Your task to perform on an android device: turn off smart reply in the gmail app Image 0: 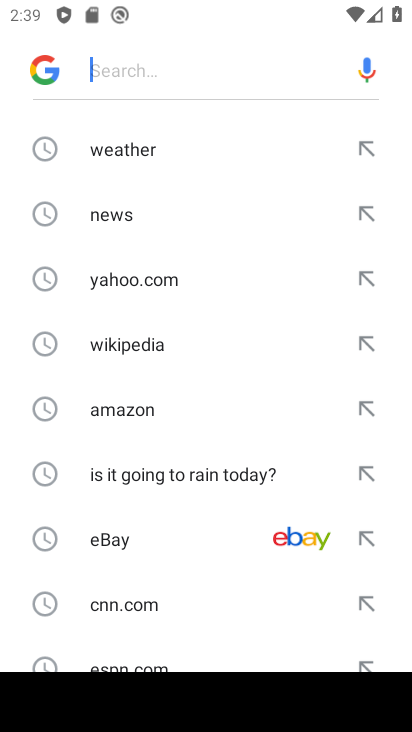
Step 0: press home button
Your task to perform on an android device: turn off smart reply in the gmail app Image 1: 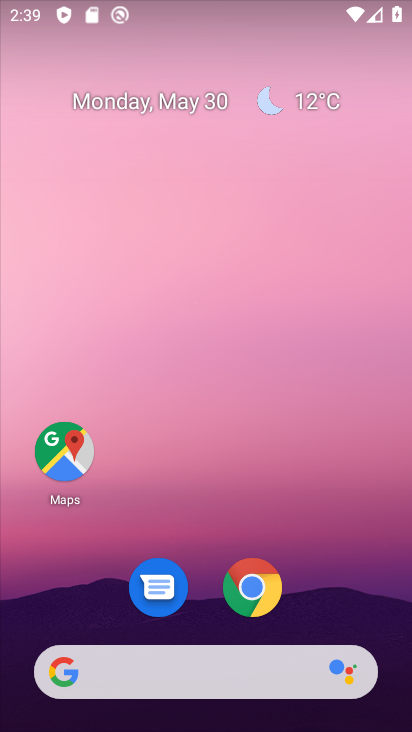
Step 1: drag from (201, 614) to (214, 167)
Your task to perform on an android device: turn off smart reply in the gmail app Image 2: 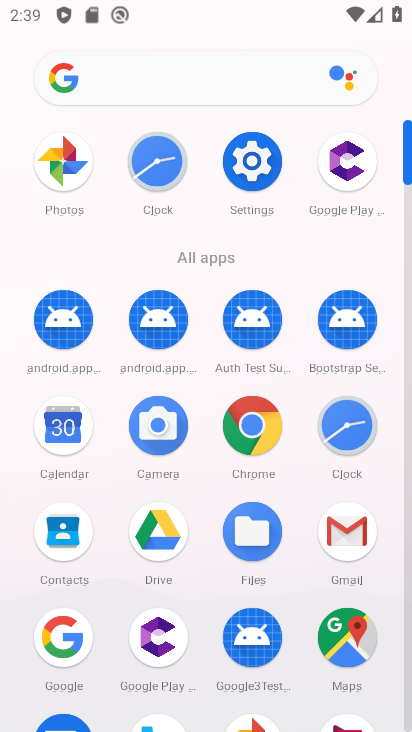
Step 2: click (341, 534)
Your task to perform on an android device: turn off smart reply in the gmail app Image 3: 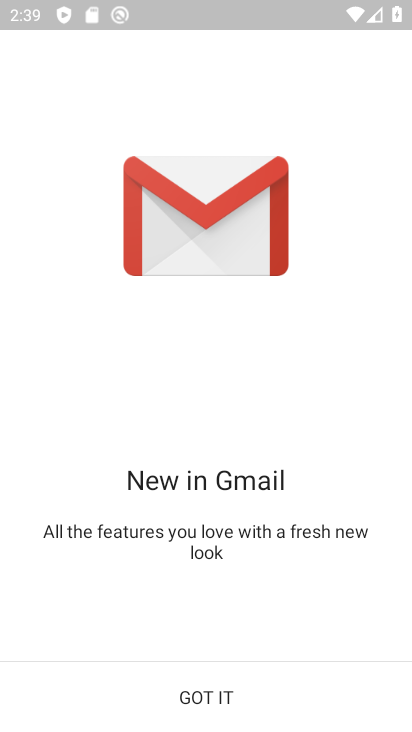
Step 3: click (203, 701)
Your task to perform on an android device: turn off smart reply in the gmail app Image 4: 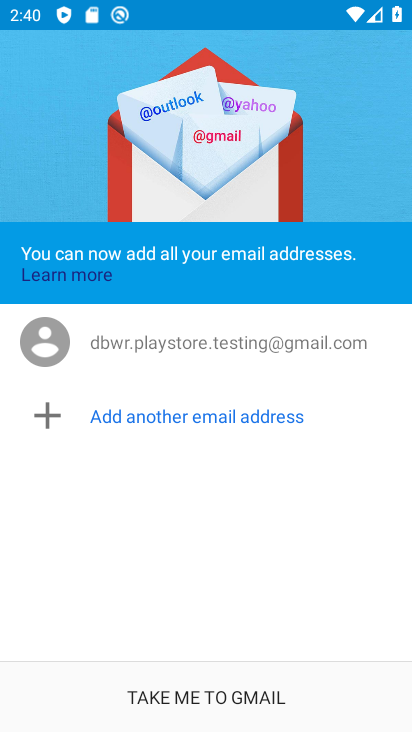
Step 4: click (173, 706)
Your task to perform on an android device: turn off smart reply in the gmail app Image 5: 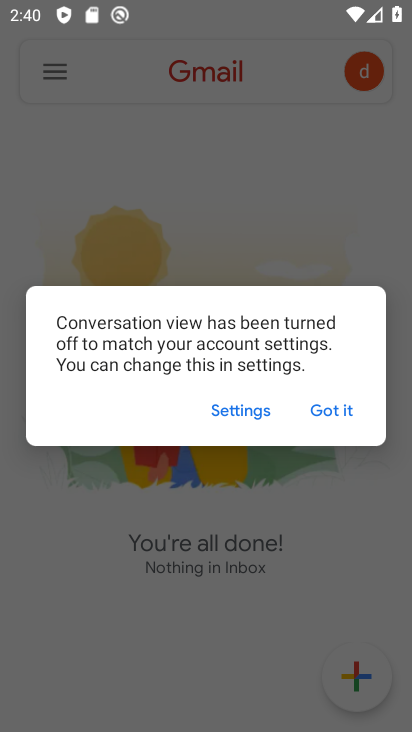
Step 5: click (312, 412)
Your task to perform on an android device: turn off smart reply in the gmail app Image 6: 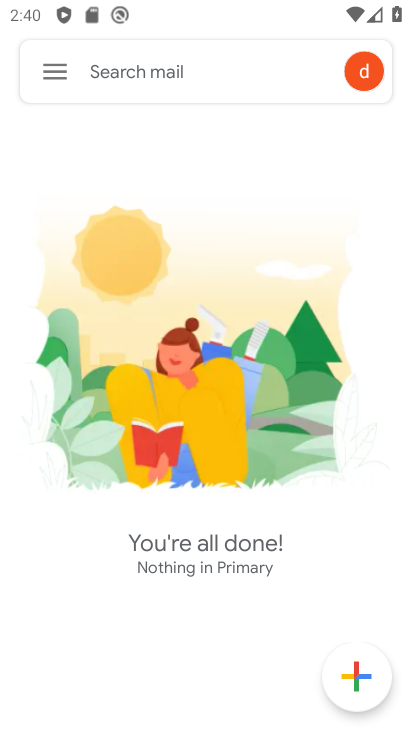
Step 6: click (64, 73)
Your task to perform on an android device: turn off smart reply in the gmail app Image 7: 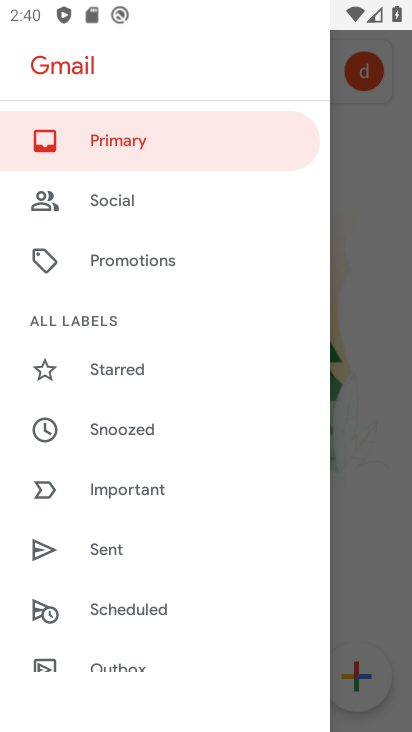
Step 7: drag from (145, 611) to (167, 250)
Your task to perform on an android device: turn off smart reply in the gmail app Image 8: 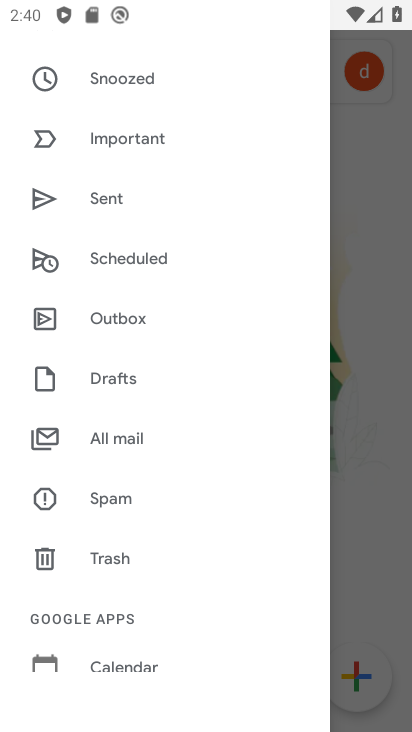
Step 8: drag from (111, 639) to (156, 255)
Your task to perform on an android device: turn off smart reply in the gmail app Image 9: 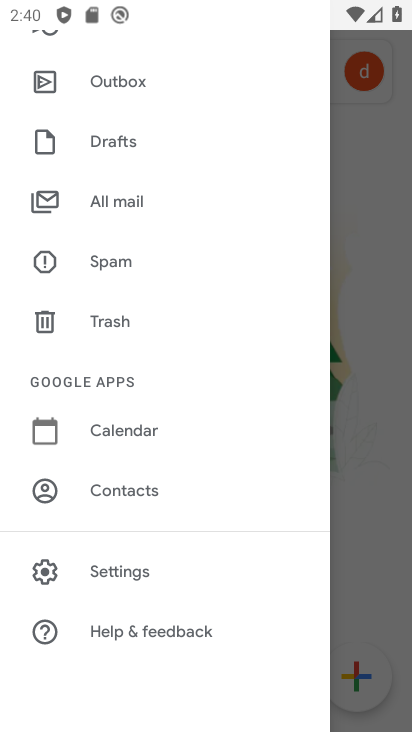
Step 9: click (106, 570)
Your task to perform on an android device: turn off smart reply in the gmail app Image 10: 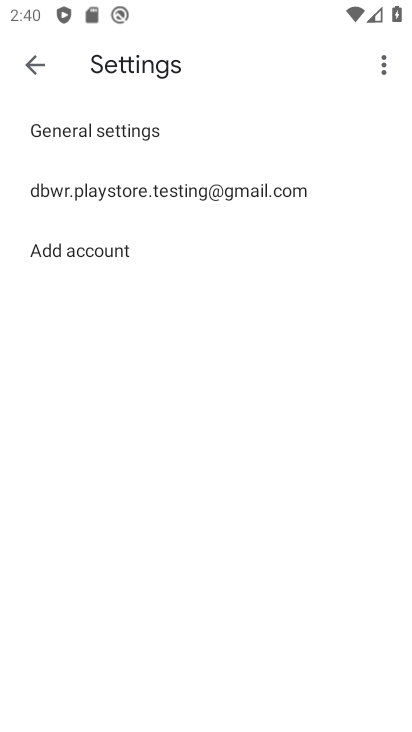
Step 10: click (136, 188)
Your task to perform on an android device: turn off smart reply in the gmail app Image 11: 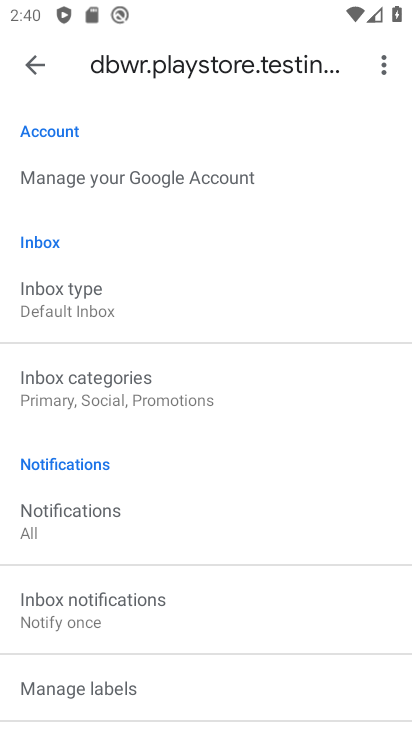
Step 11: drag from (119, 608) to (119, 286)
Your task to perform on an android device: turn off smart reply in the gmail app Image 12: 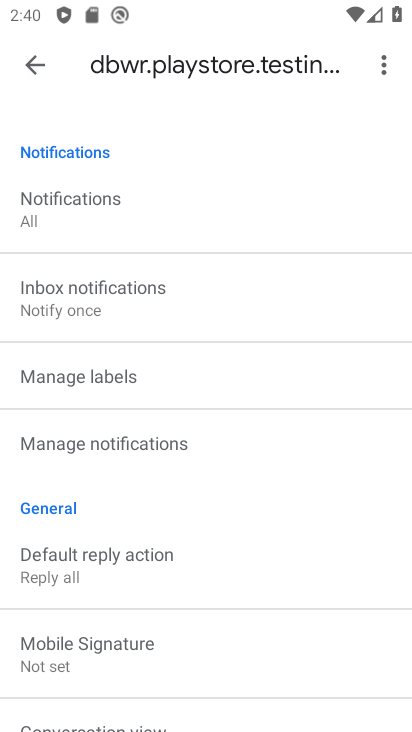
Step 12: drag from (132, 611) to (199, 221)
Your task to perform on an android device: turn off smart reply in the gmail app Image 13: 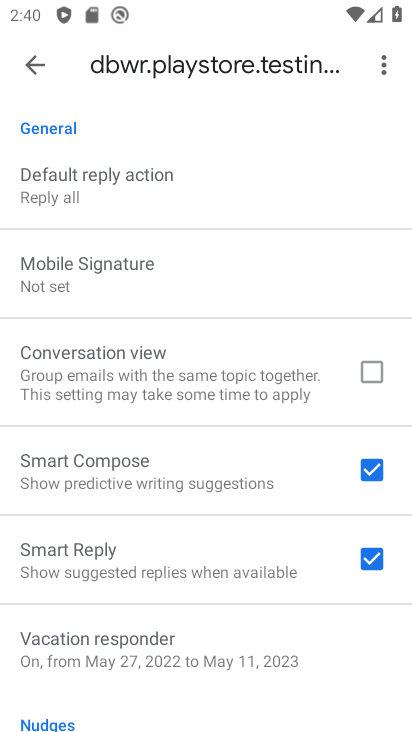
Step 13: click (378, 555)
Your task to perform on an android device: turn off smart reply in the gmail app Image 14: 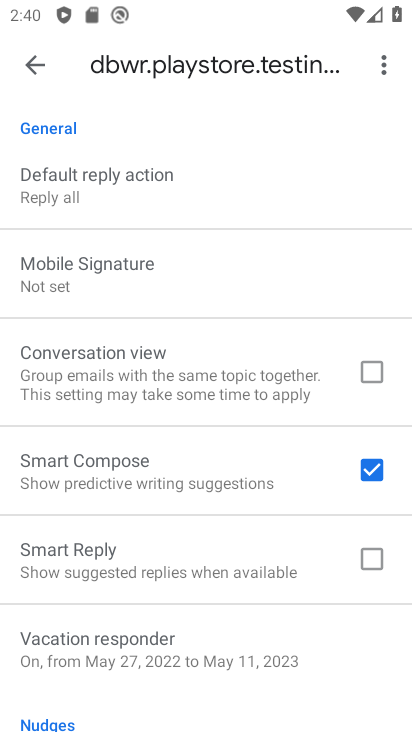
Step 14: task complete